Your task to perform on an android device: open app "Pinterest" Image 0: 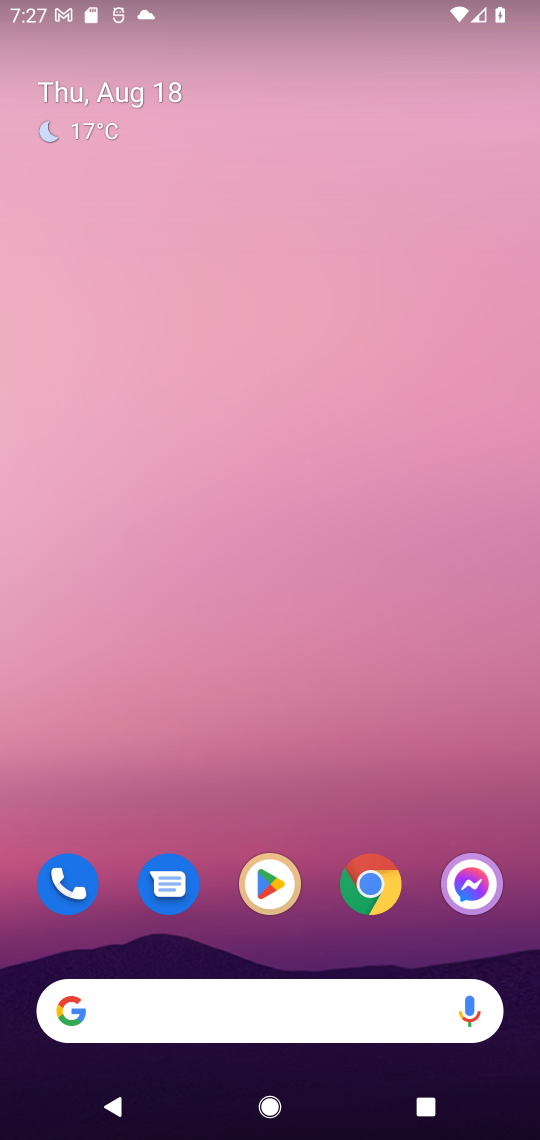
Step 0: drag from (247, 1011) to (275, 220)
Your task to perform on an android device: open app "Pinterest" Image 1: 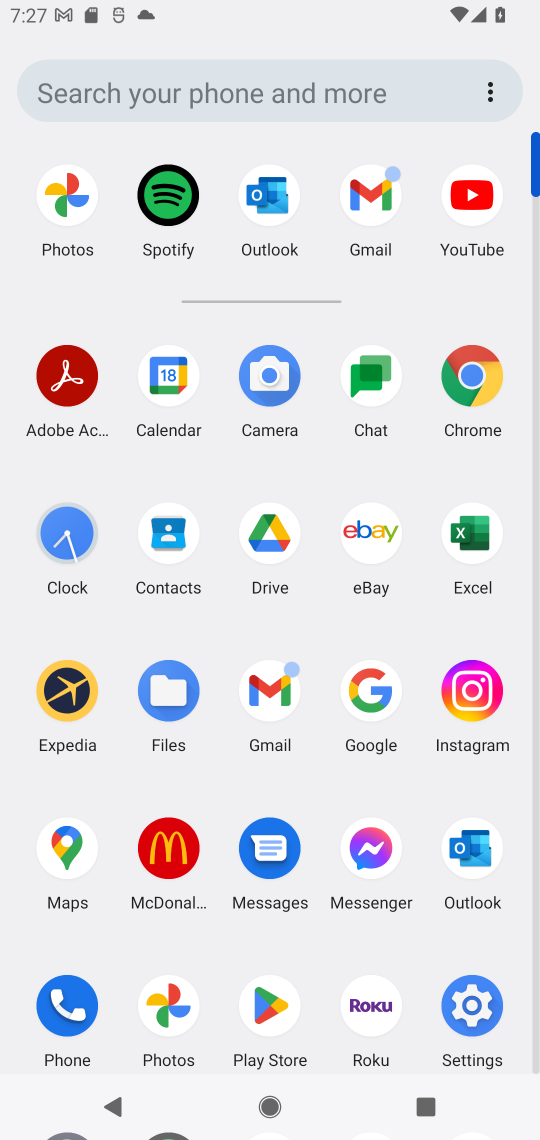
Step 1: click (273, 1005)
Your task to perform on an android device: open app "Pinterest" Image 2: 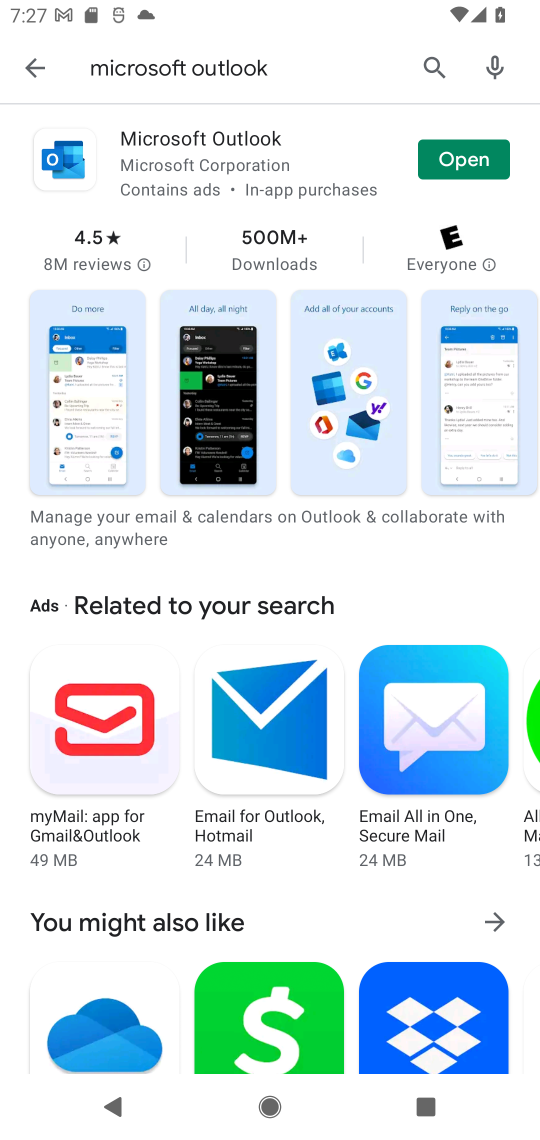
Step 2: press back button
Your task to perform on an android device: open app "Pinterest" Image 3: 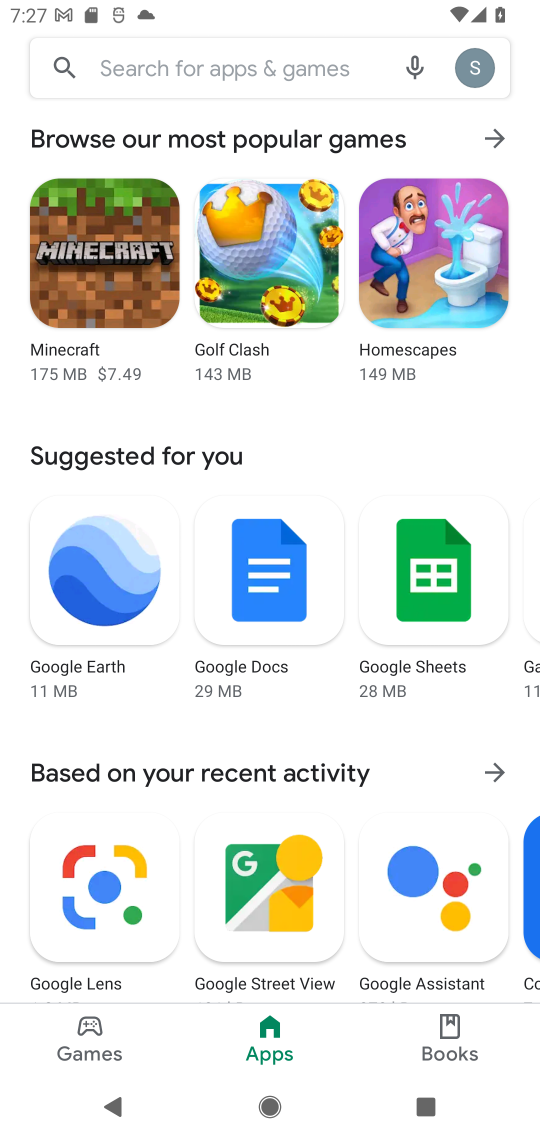
Step 3: click (292, 59)
Your task to perform on an android device: open app "Pinterest" Image 4: 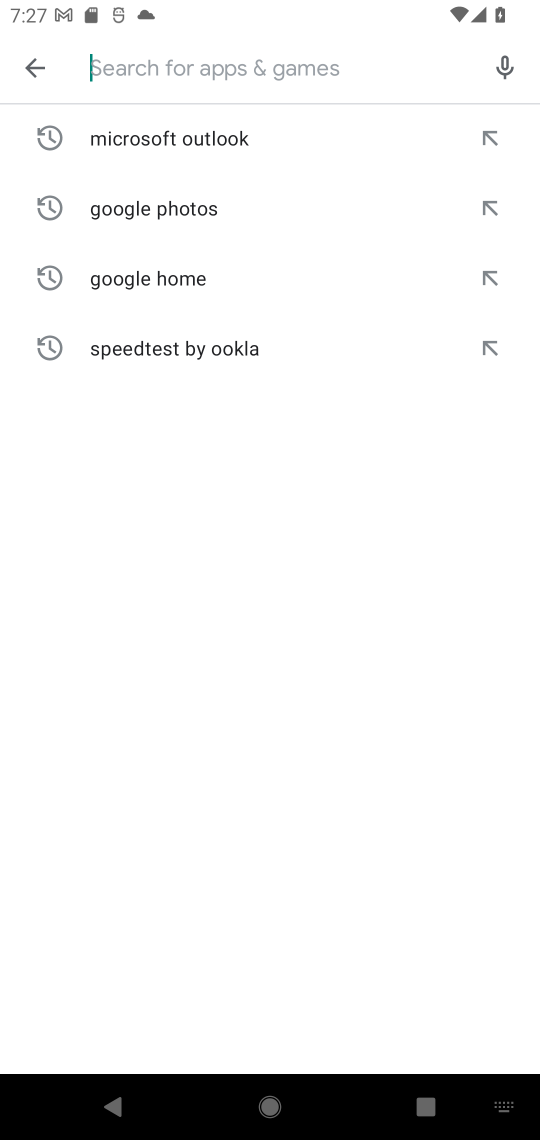
Step 4: type "Pinterest"
Your task to perform on an android device: open app "Pinterest" Image 5: 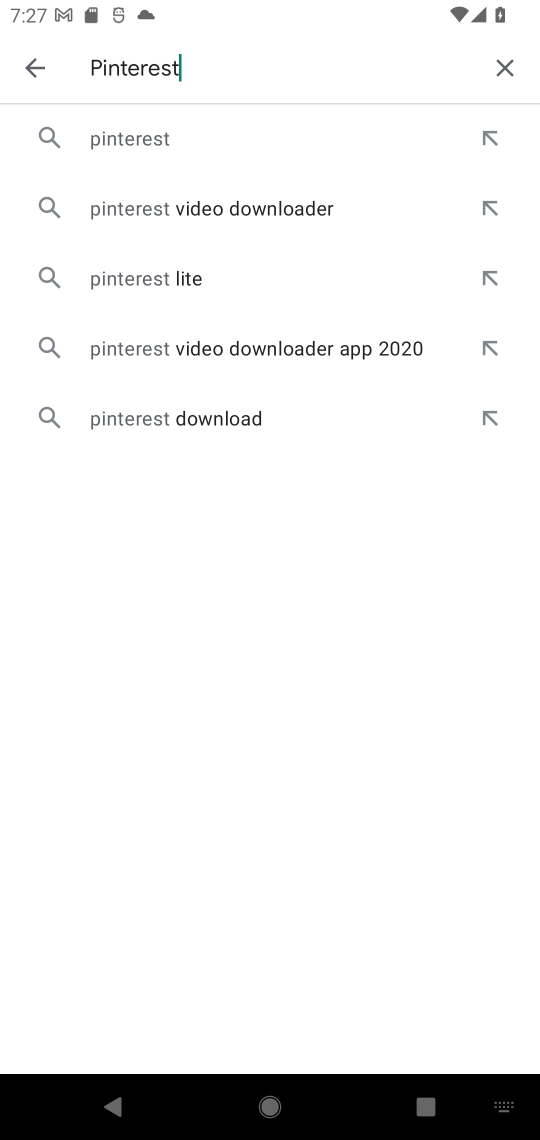
Step 5: click (153, 140)
Your task to perform on an android device: open app "Pinterest" Image 6: 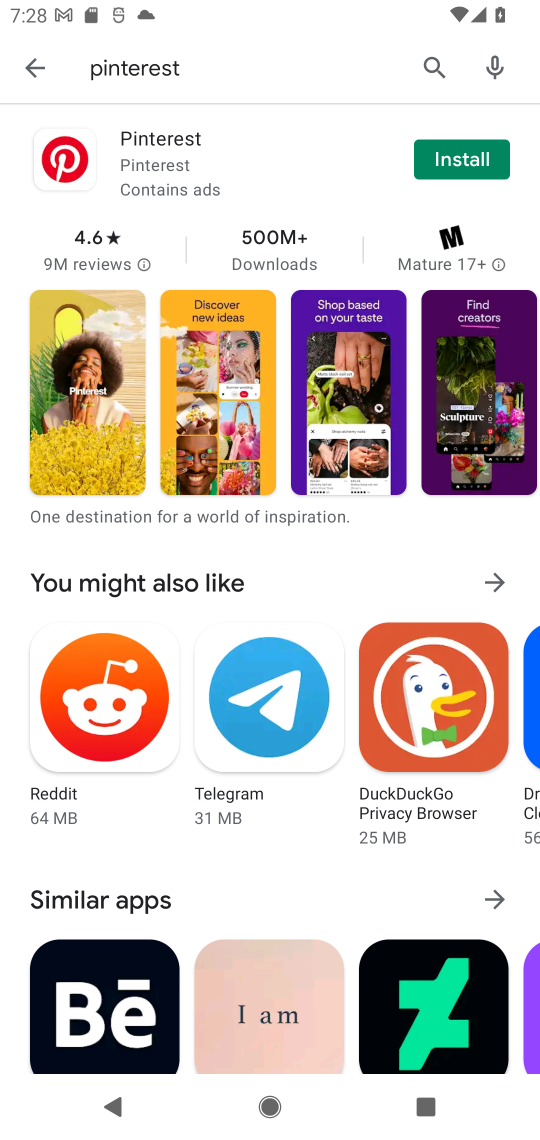
Step 6: task complete